Your task to perform on an android device: open chrome and create a bookmark for the current page Image 0: 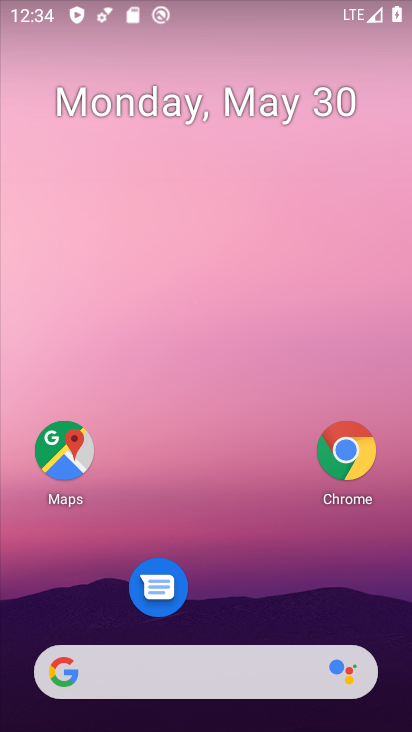
Step 0: click (344, 447)
Your task to perform on an android device: open chrome and create a bookmark for the current page Image 1: 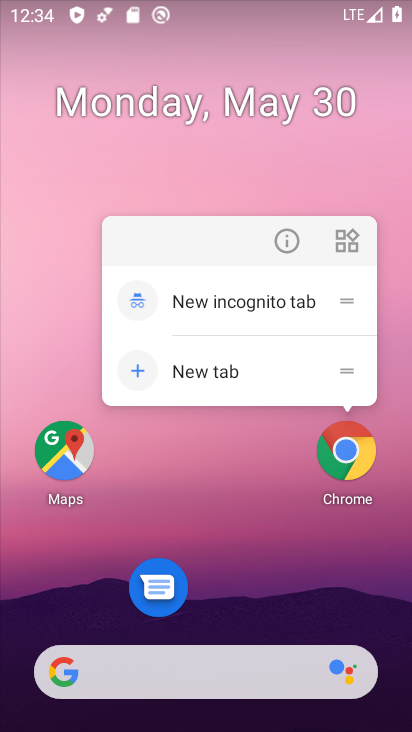
Step 1: click (344, 447)
Your task to perform on an android device: open chrome and create a bookmark for the current page Image 2: 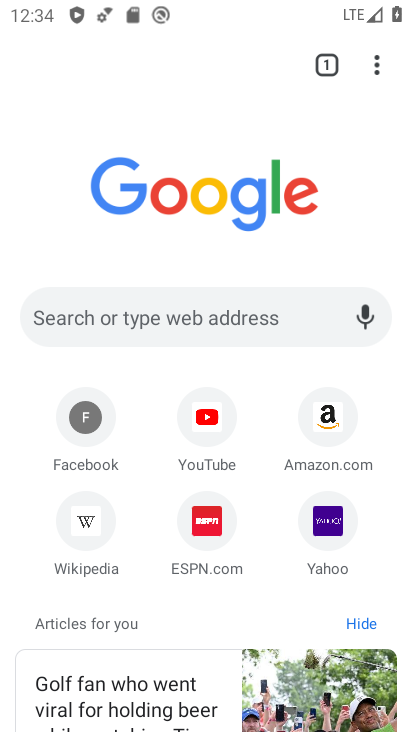
Step 2: click (355, 68)
Your task to perform on an android device: open chrome and create a bookmark for the current page Image 3: 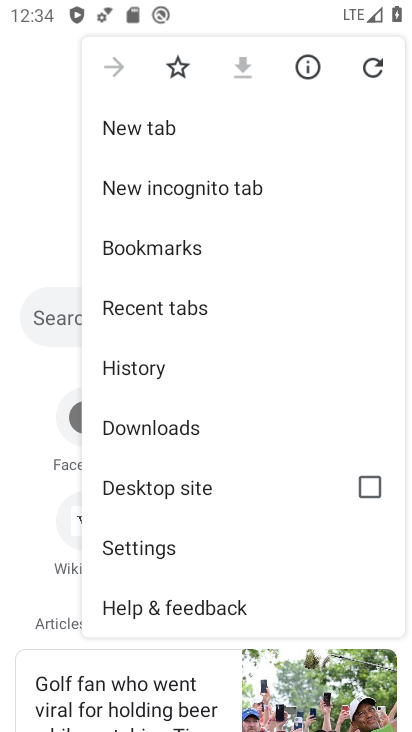
Step 3: click (164, 252)
Your task to perform on an android device: open chrome and create a bookmark for the current page Image 4: 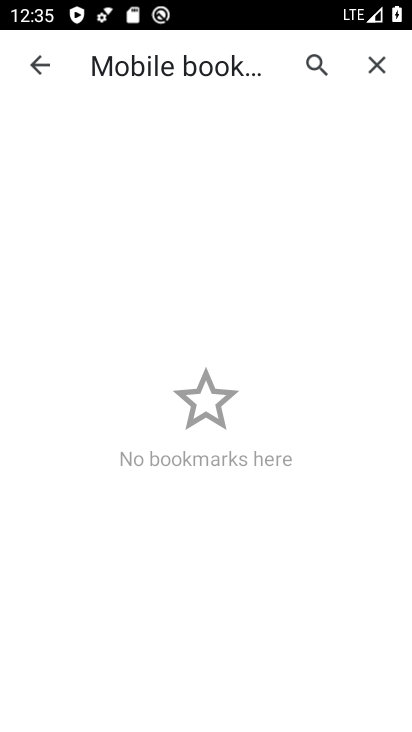
Step 4: task complete